Your task to perform on an android device: check storage Image 0: 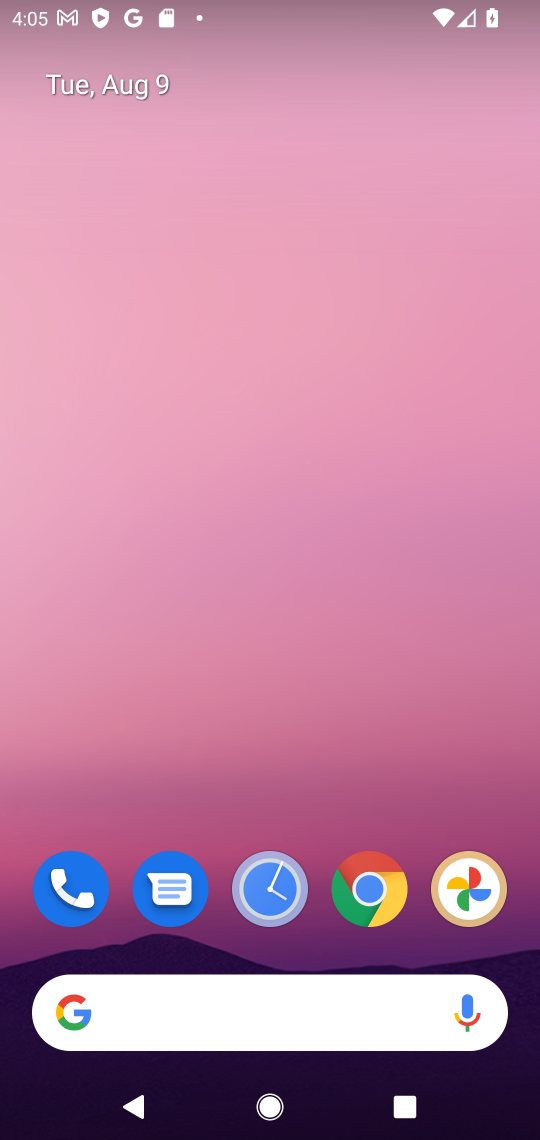
Step 0: drag from (270, 782) to (355, 4)
Your task to perform on an android device: check storage Image 1: 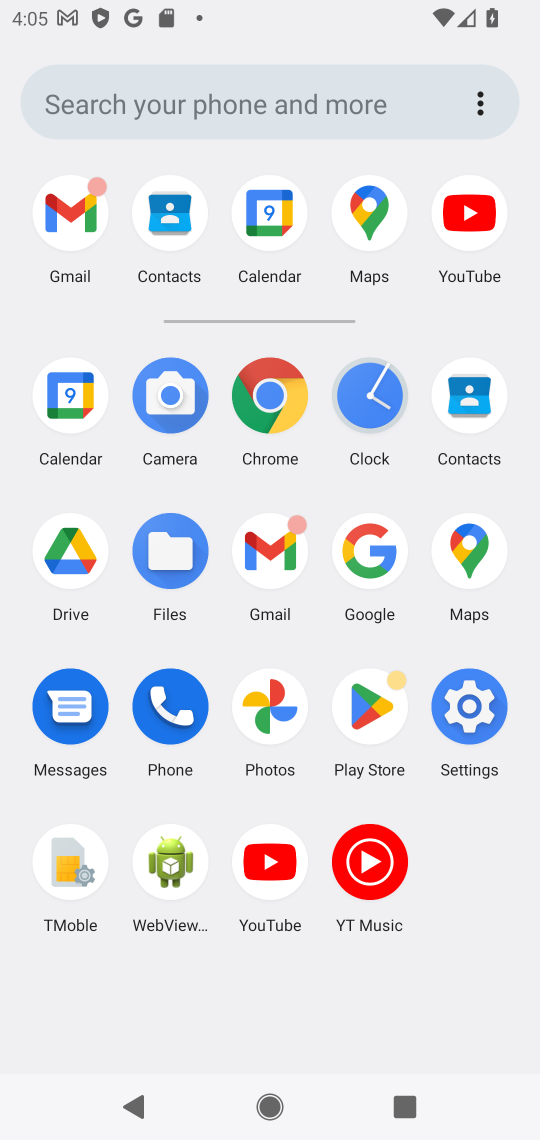
Step 1: click (461, 710)
Your task to perform on an android device: check storage Image 2: 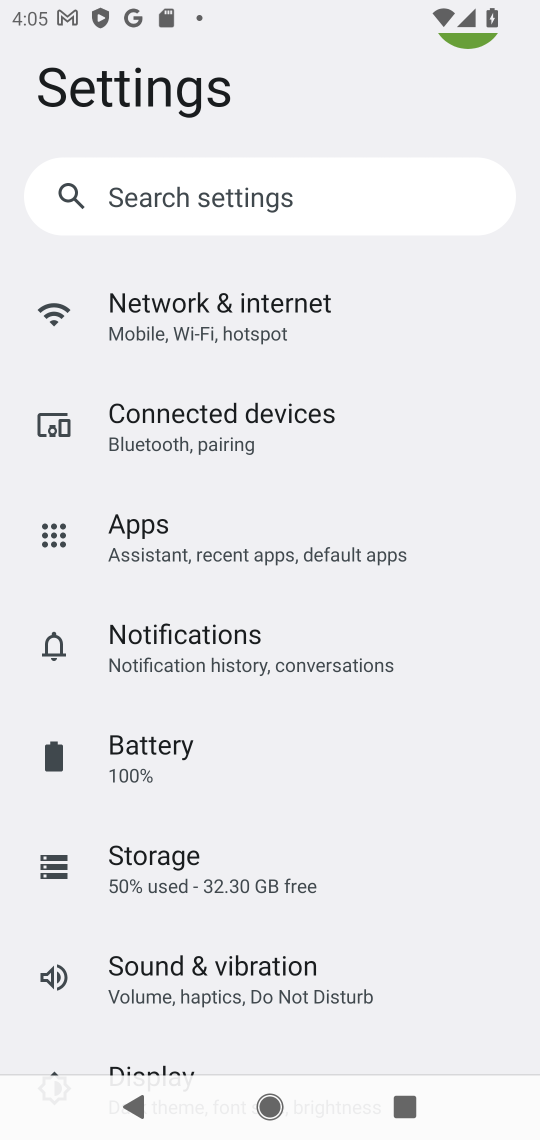
Step 2: click (253, 857)
Your task to perform on an android device: check storage Image 3: 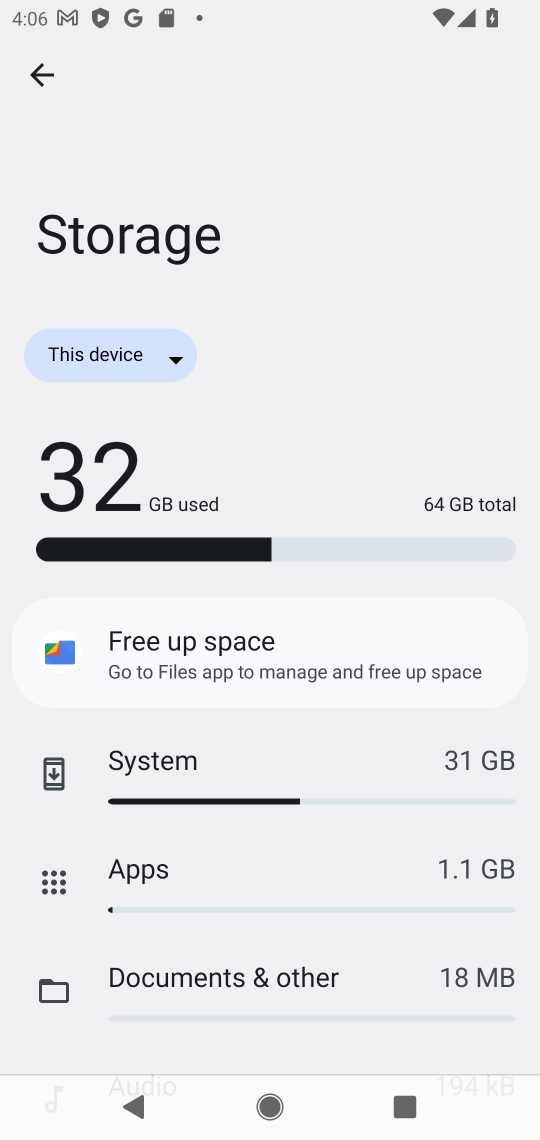
Step 3: task complete